Your task to perform on an android device: open a new tab in the chrome app Image 0: 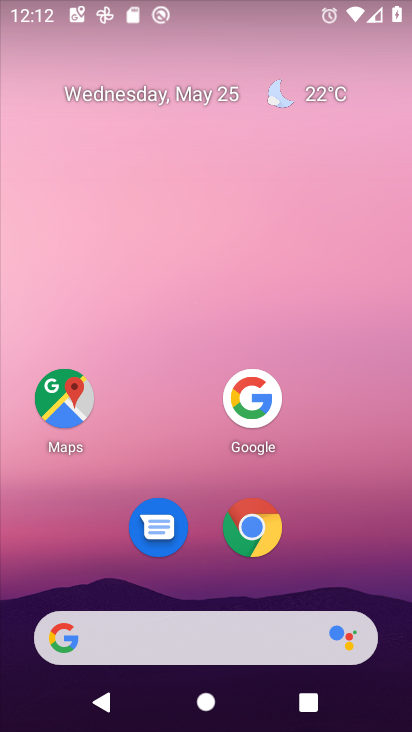
Step 0: press home button
Your task to perform on an android device: open a new tab in the chrome app Image 1: 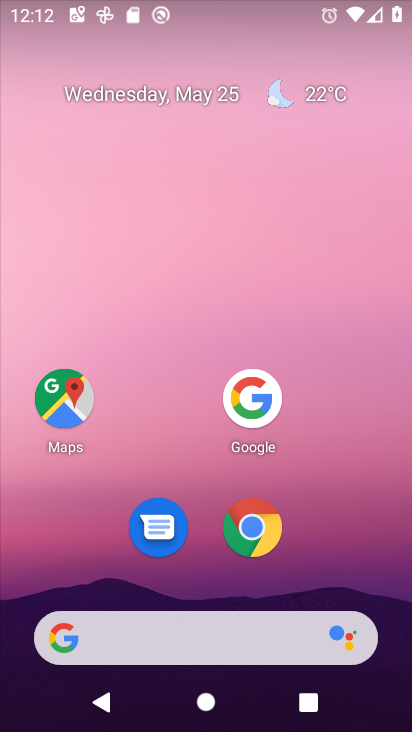
Step 1: click (250, 520)
Your task to perform on an android device: open a new tab in the chrome app Image 2: 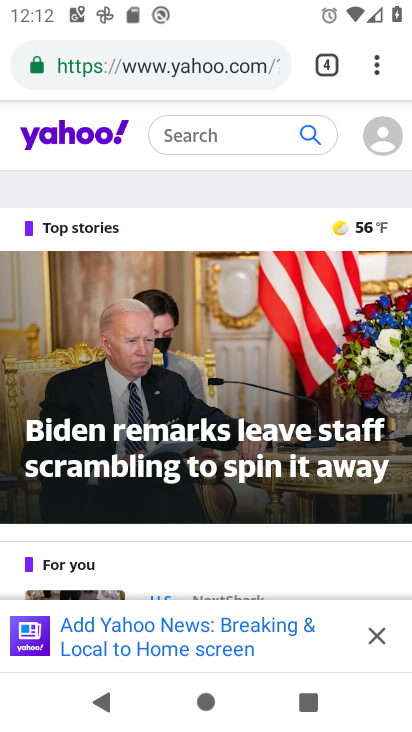
Step 2: task complete